Your task to perform on an android device: Open Yahoo.com Image 0: 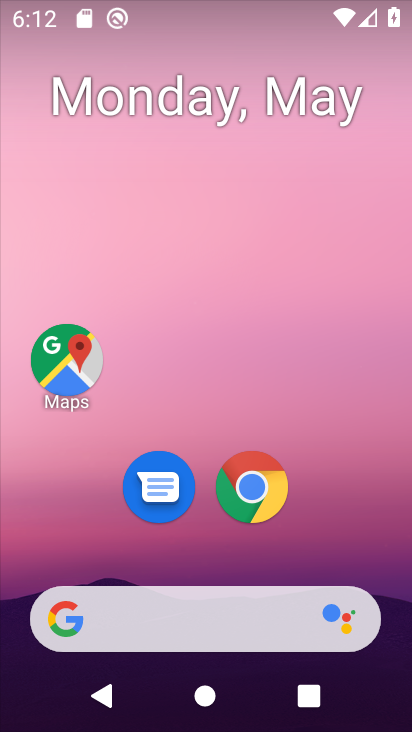
Step 0: click (252, 478)
Your task to perform on an android device: Open Yahoo.com Image 1: 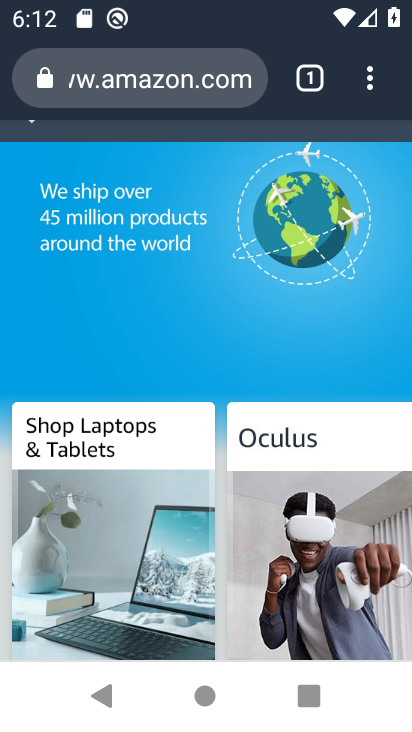
Step 1: click (319, 68)
Your task to perform on an android device: Open Yahoo.com Image 2: 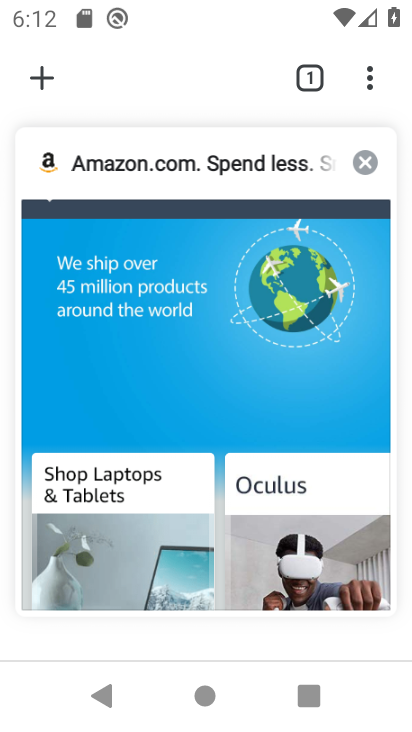
Step 2: click (368, 156)
Your task to perform on an android device: Open Yahoo.com Image 3: 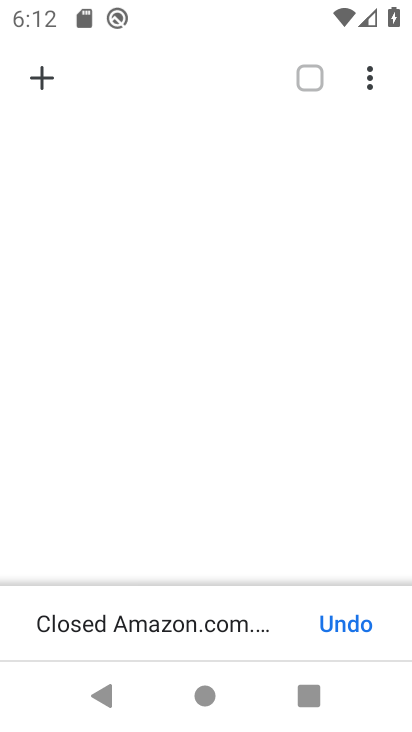
Step 3: click (44, 78)
Your task to perform on an android device: Open Yahoo.com Image 4: 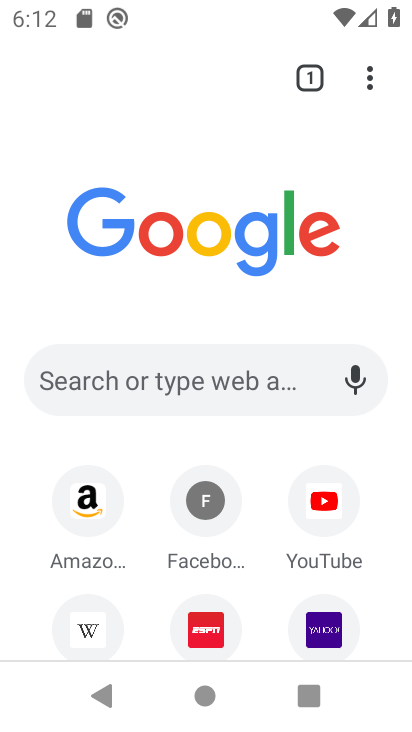
Step 4: click (330, 619)
Your task to perform on an android device: Open Yahoo.com Image 5: 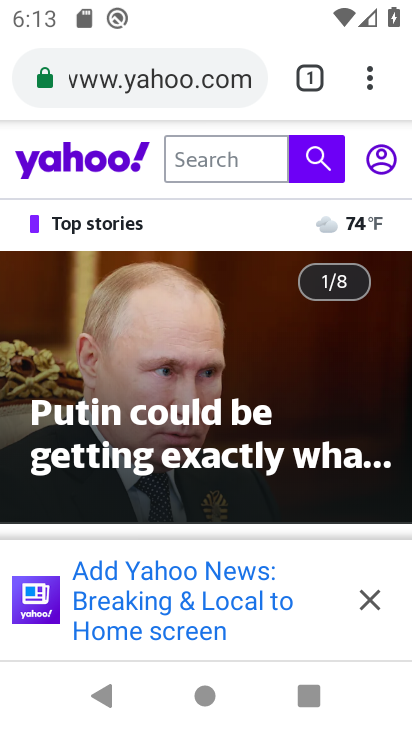
Step 5: click (366, 602)
Your task to perform on an android device: Open Yahoo.com Image 6: 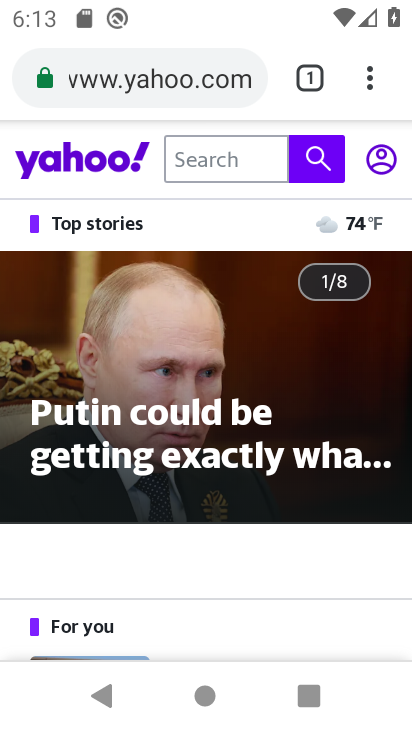
Step 6: task complete